Your task to perform on an android device: Search for Mexican restaurants on Maps Image 0: 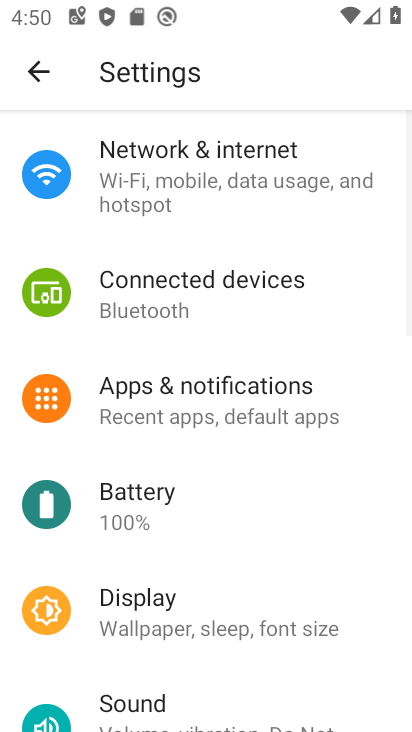
Step 0: press home button
Your task to perform on an android device: Search for Mexican restaurants on Maps Image 1: 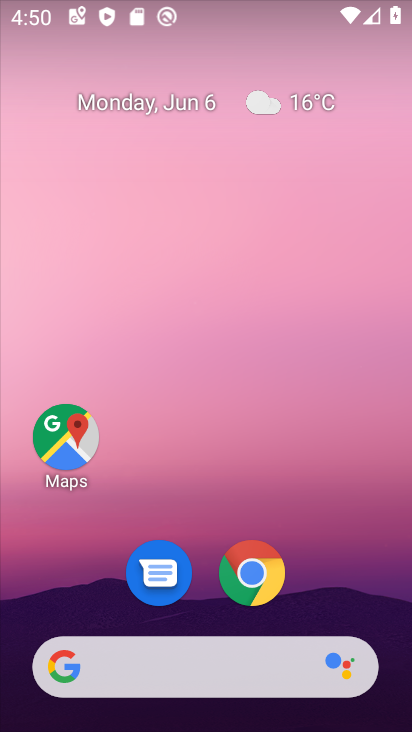
Step 1: click (67, 441)
Your task to perform on an android device: Search for Mexican restaurants on Maps Image 2: 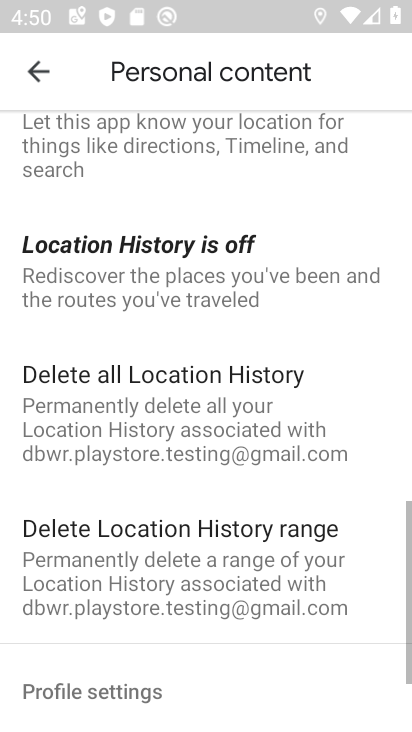
Step 2: click (46, 67)
Your task to perform on an android device: Search for Mexican restaurants on Maps Image 3: 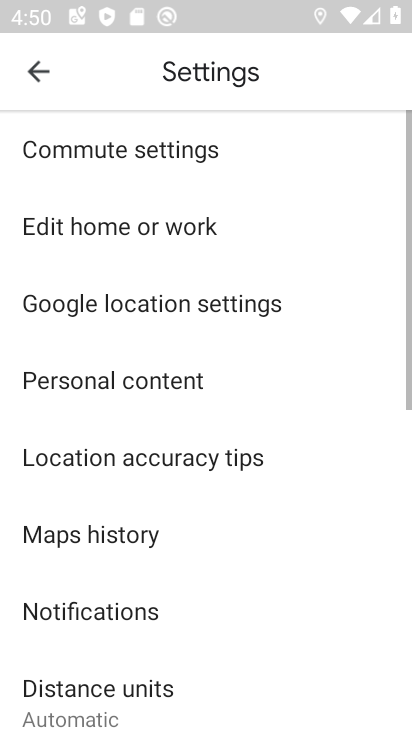
Step 3: click (46, 67)
Your task to perform on an android device: Search for Mexican restaurants on Maps Image 4: 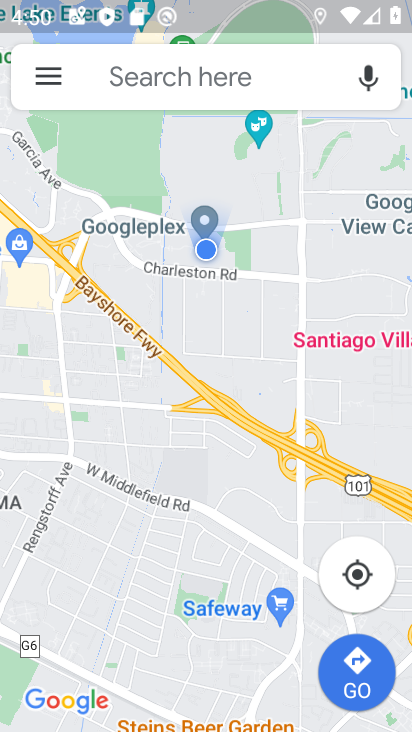
Step 4: click (139, 75)
Your task to perform on an android device: Search for Mexican restaurants on Maps Image 5: 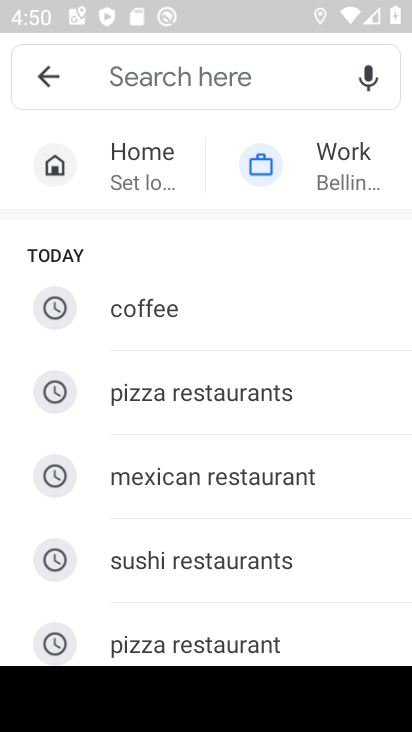
Step 5: click (251, 476)
Your task to perform on an android device: Search for Mexican restaurants on Maps Image 6: 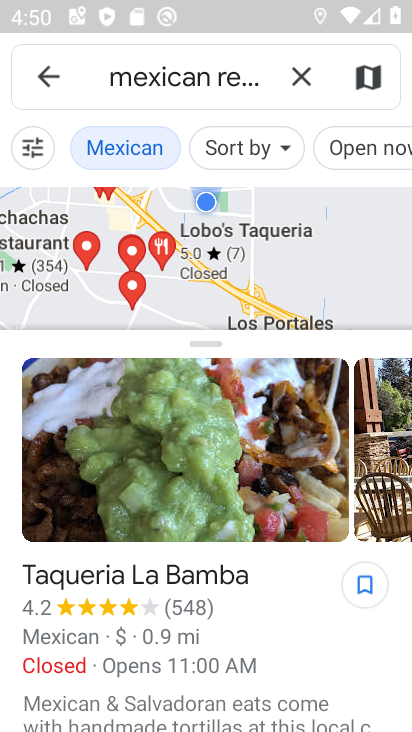
Step 6: task complete